Your task to perform on an android device: visit the assistant section in the google photos Image 0: 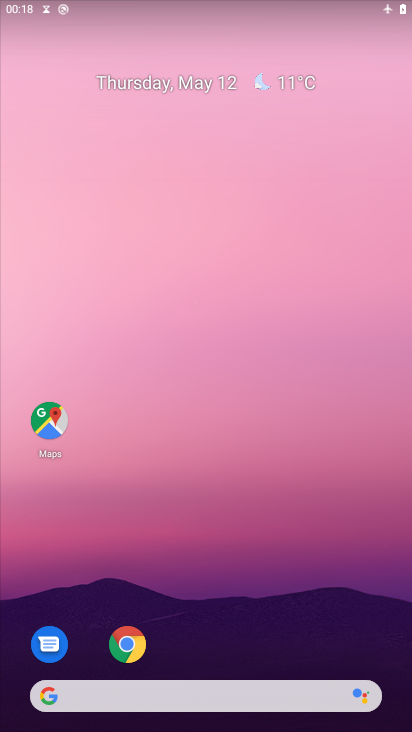
Step 0: drag from (208, 660) to (194, 63)
Your task to perform on an android device: visit the assistant section in the google photos Image 1: 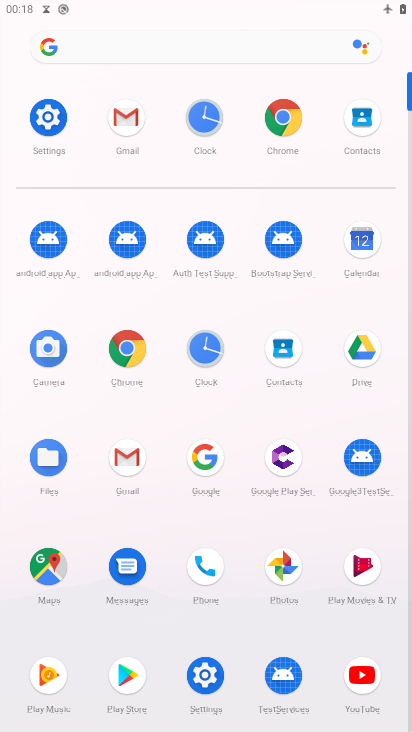
Step 1: click (281, 556)
Your task to perform on an android device: visit the assistant section in the google photos Image 2: 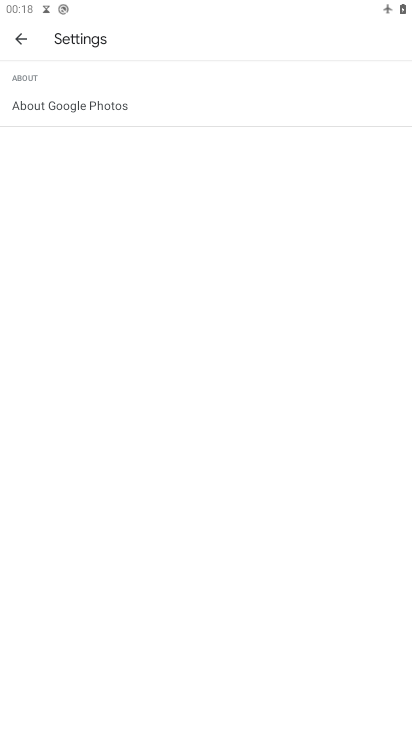
Step 2: click (24, 37)
Your task to perform on an android device: visit the assistant section in the google photos Image 3: 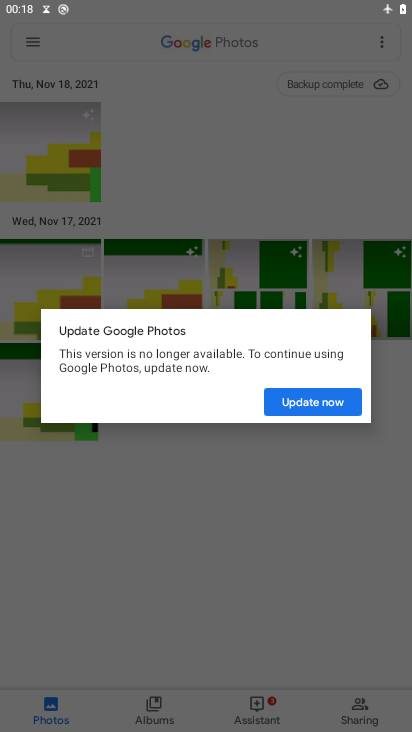
Step 3: click (299, 400)
Your task to perform on an android device: visit the assistant section in the google photos Image 4: 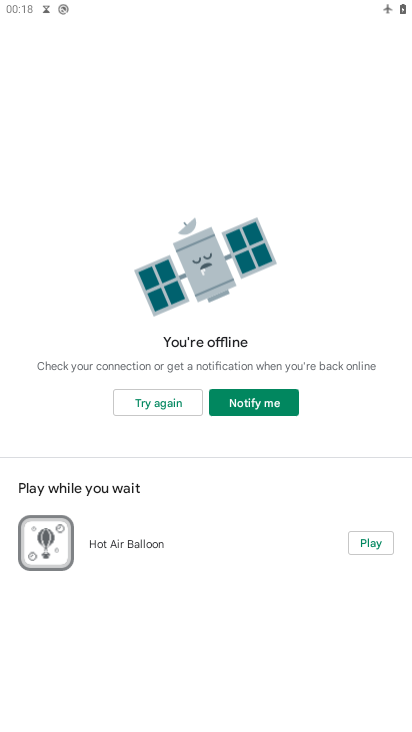
Step 4: task complete